Your task to perform on an android device: Open Android settings Image 0: 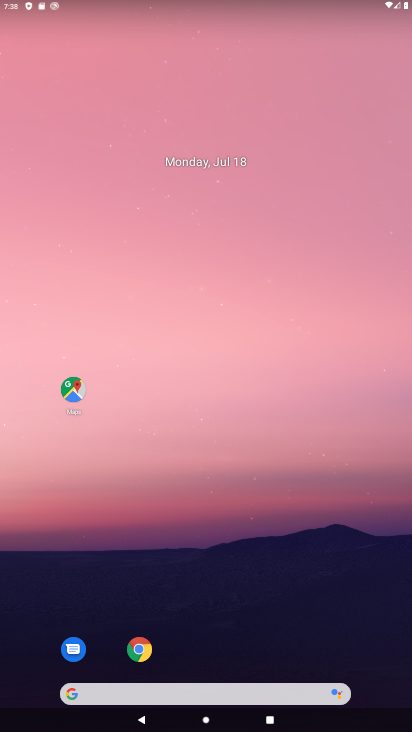
Step 0: drag from (209, 617) to (319, 206)
Your task to perform on an android device: Open Android settings Image 1: 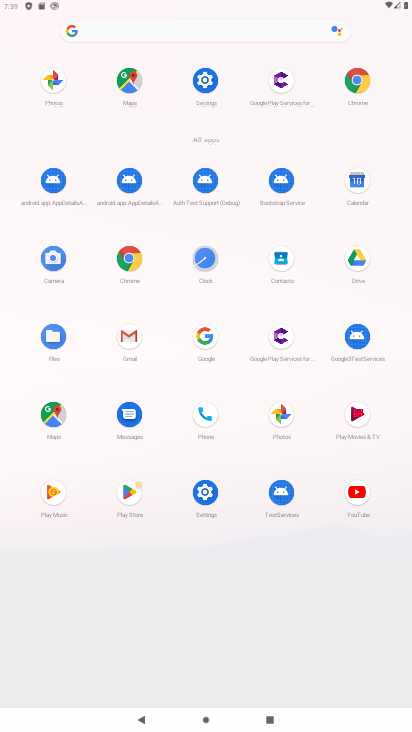
Step 1: click (197, 69)
Your task to perform on an android device: Open Android settings Image 2: 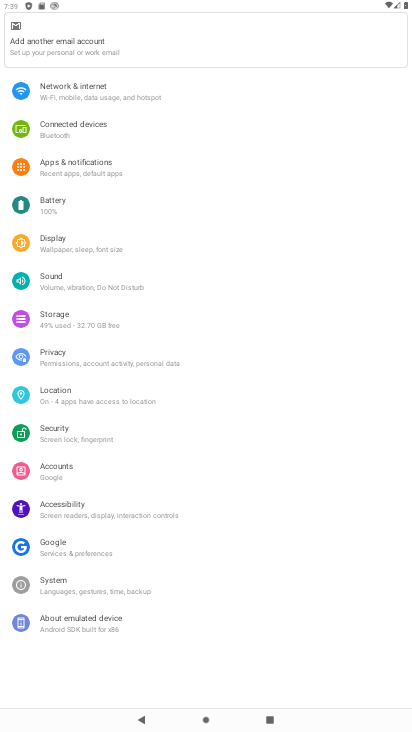
Step 2: task complete